Your task to perform on an android device: turn off location history Image 0: 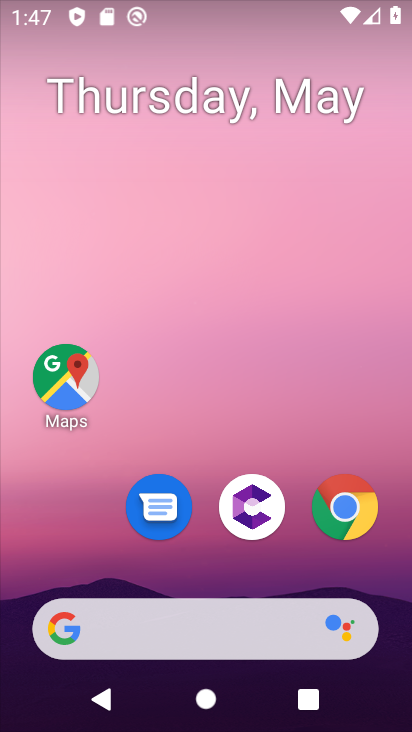
Step 0: drag from (300, 425) to (396, 282)
Your task to perform on an android device: turn off location history Image 1: 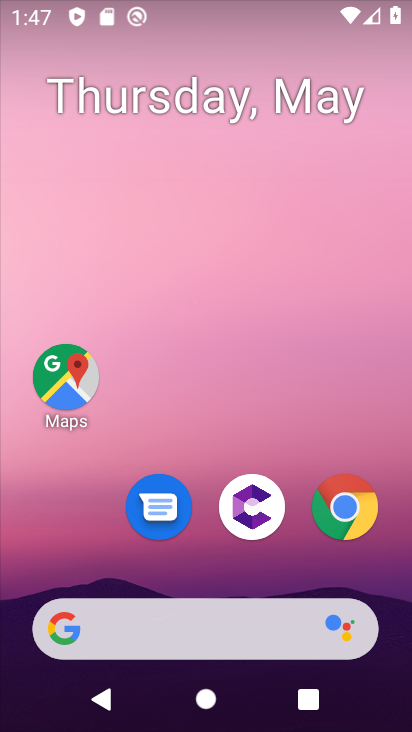
Step 1: drag from (278, 431) to (403, 0)
Your task to perform on an android device: turn off location history Image 2: 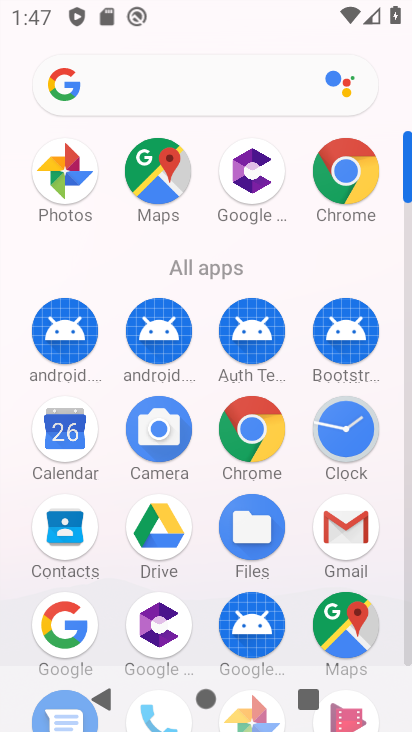
Step 2: drag from (199, 588) to (286, 221)
Your task to perform on an android device: turn off location history Image 3: 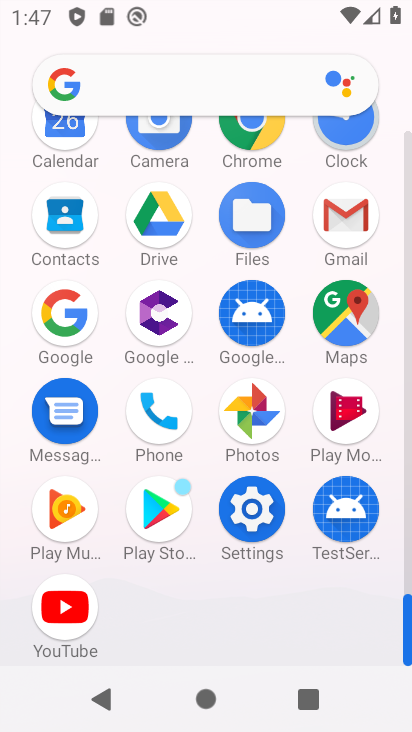
Step 3: click (252, 521)
Your task to perform on an android device: turn off location history Image 4: 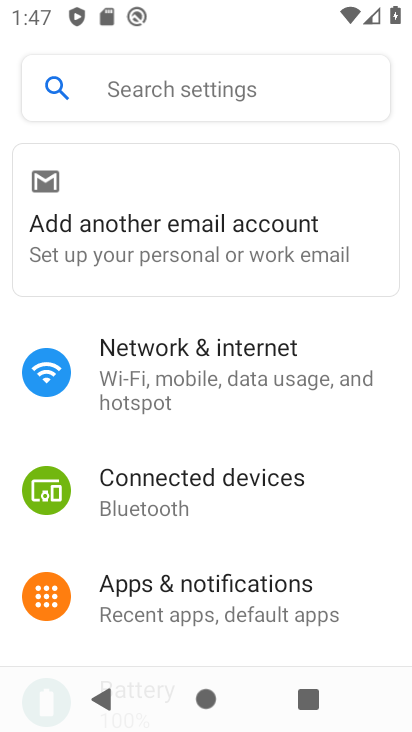
Step 4: drag from (319, 533) to (290, 81)
Your task to perform on an android device: turn off location history Image 5: 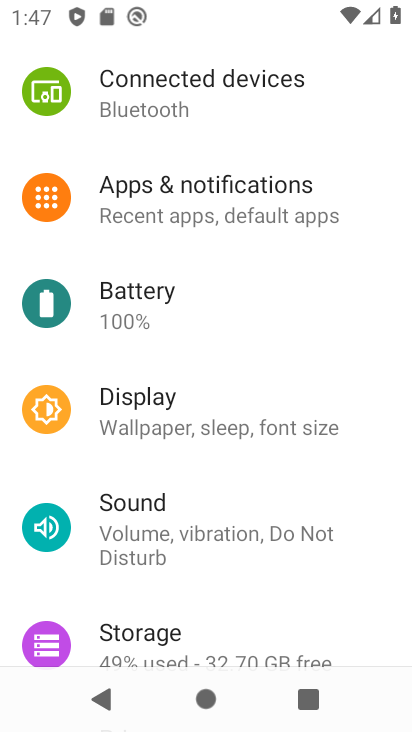
Step 5: drag from (291, 608) to (283, 263)
Your task to perform on an android device: turn off location history Image 6: 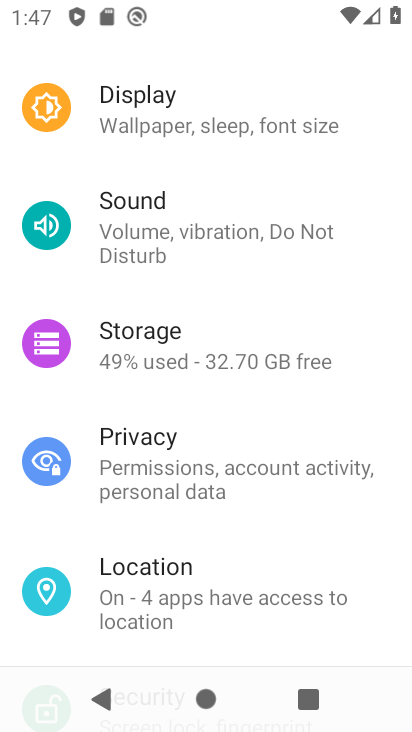
Step 6: click (162, 575)
Your task to perform on an android device: turn off location history Image 7: 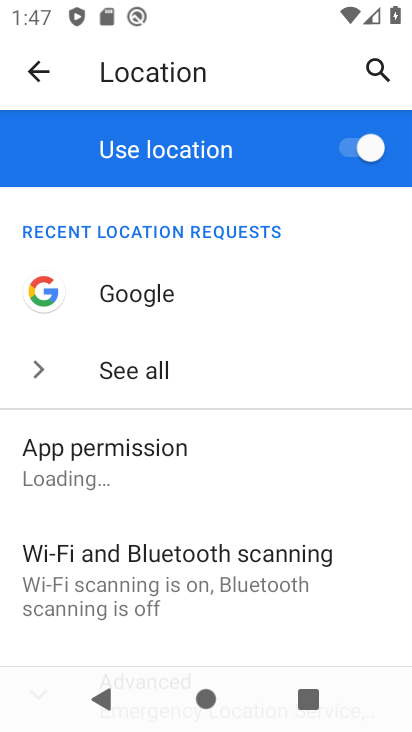
Step 7: drag from (197, 490) to (241, 186)
Your task to perform on an android device: turn off location history Image 8: 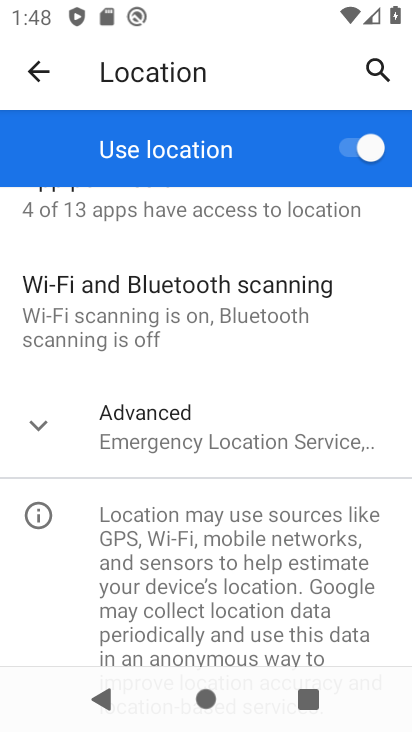
Step 8: click (50, 419)
Your task to perform on an android device: turn off location history Image 9: 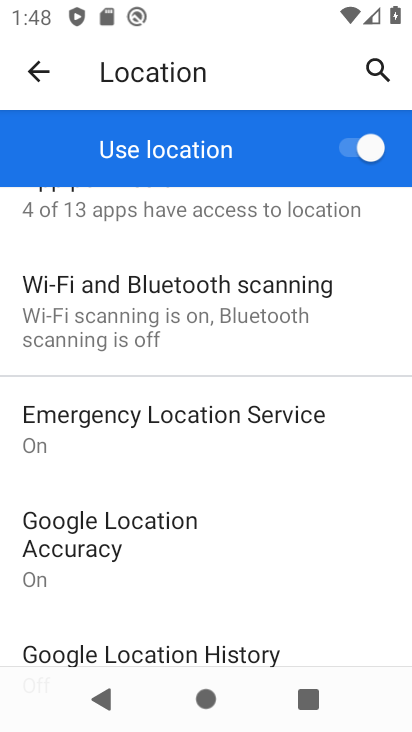
Step 9: click (250, 646)
Your task to perform on an android device: turn off location history Image 10: 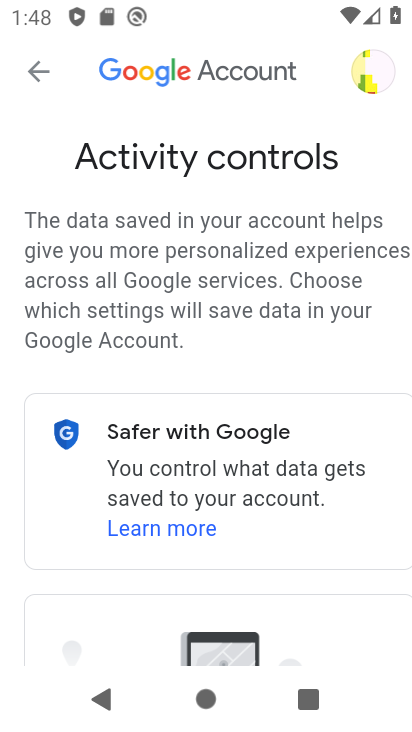
Step 10: drag from (310, 546) to (314, 265)
Your task to perform on an android device: turn off location history Image 11: 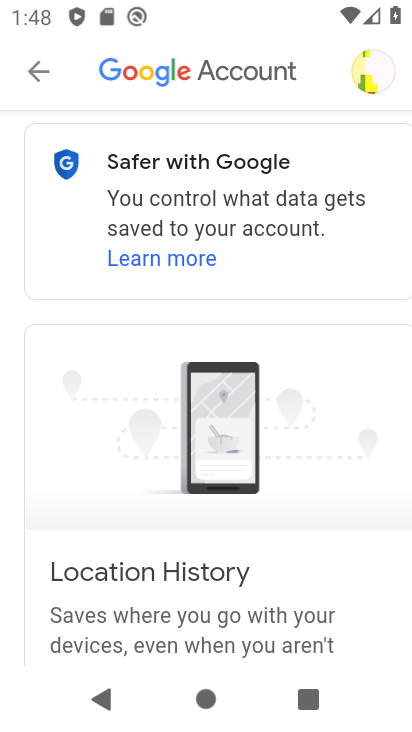
Step 11: drag from (303, 618) to (317, 256)
Your task to perform on an android device: turn off location history Image 12: 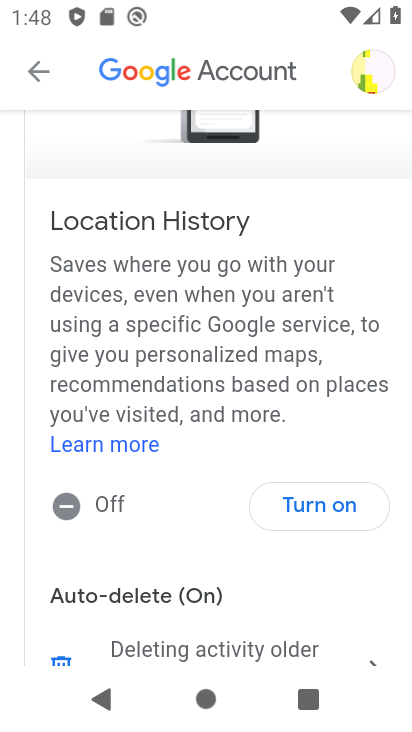
Step 12: click (78, 512)
Your task to perform on an android device: turn off location history Image 13: 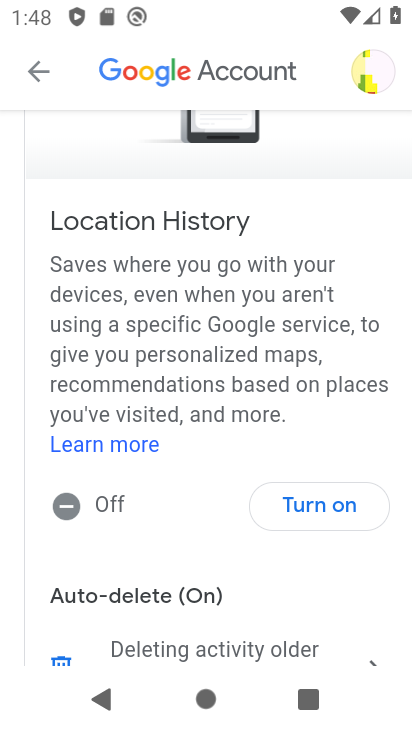
Step 13: click (121, 500)
Your task to perform on an android device: turn off location history Image 14: 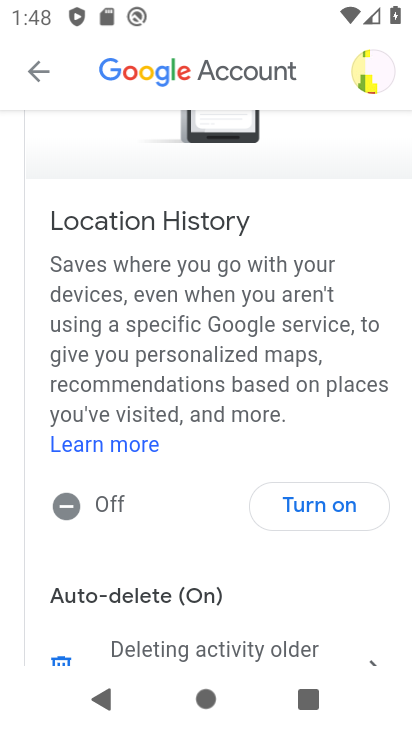
Step 14: click (336, 509)
Your task to perform on an android device: turn off location history Image 15: 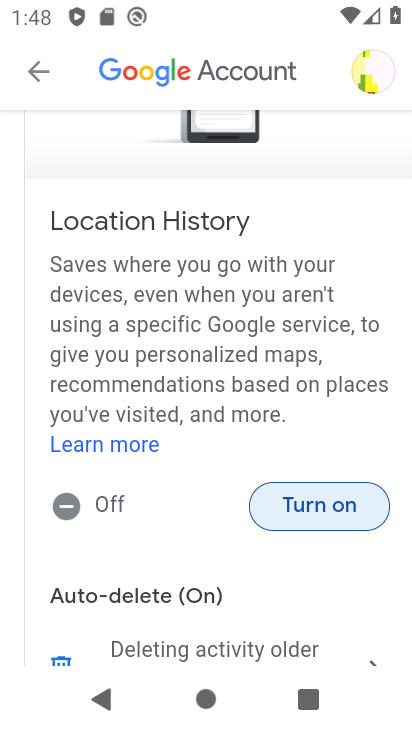
Step 15: click (317, 502)
Your task to perform on an android device: turn off location history Image 16: 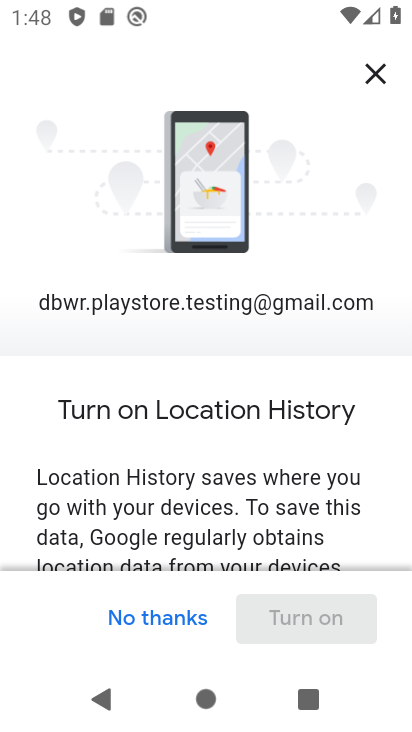
Step 16: click (145, 608)
Your task to perform on an android device: turn off location history Image 17: 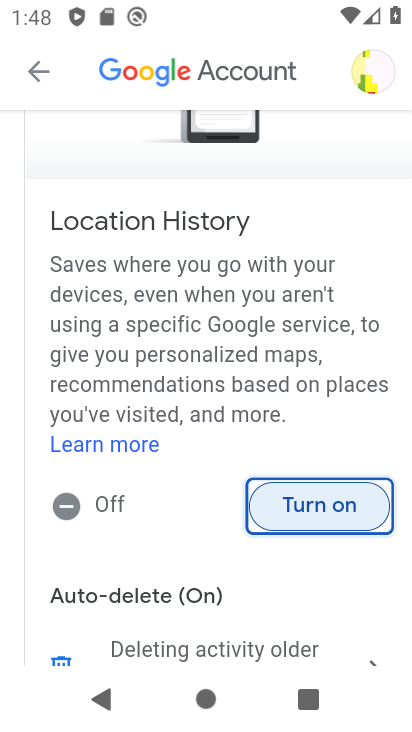
Step 17: click (107, 503)
Your task to perform on an android device: turn off location history Image 18: 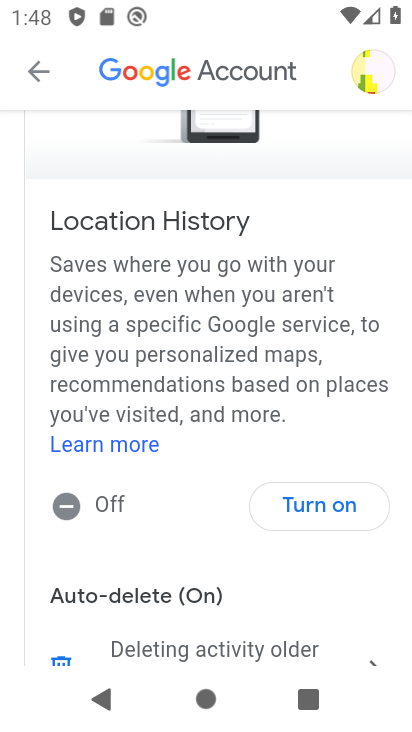
Step 18: click (63, 508)
Your task to perform on an android device: turn off location history Image 19: 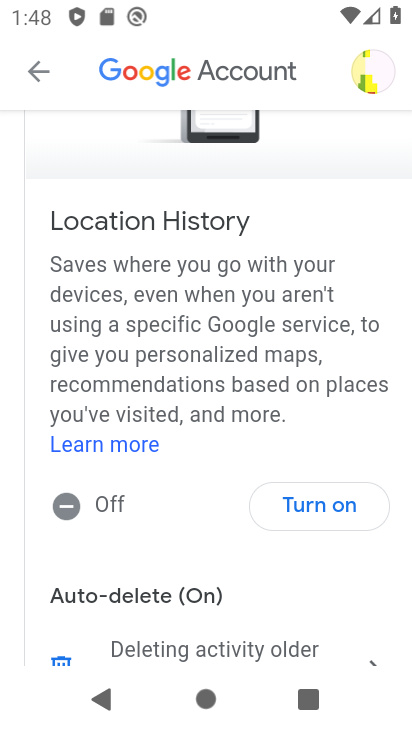
Step 19: click (63, 508)
Your task to perform on an android device: turn off location history Image 20: 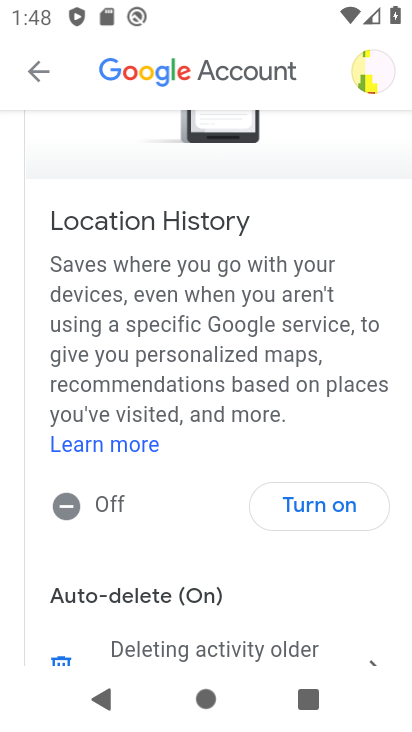
Step 20: click (110, 509)
Your task to perform on an android device: turn off location history Image 21: 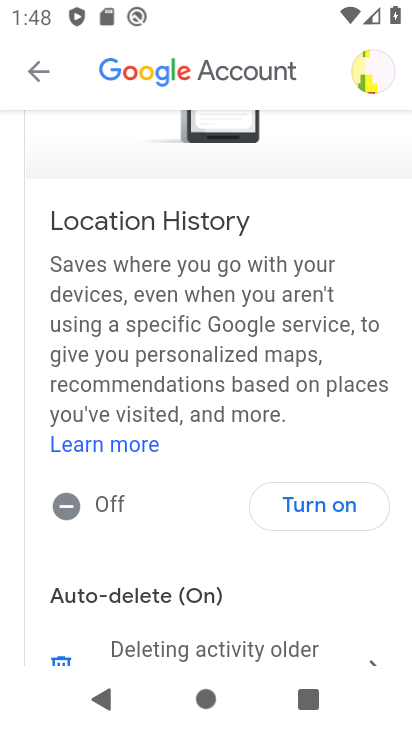
Step 21: click (335, 509)
Your task to perform on an android device: turn off location history Image 22: 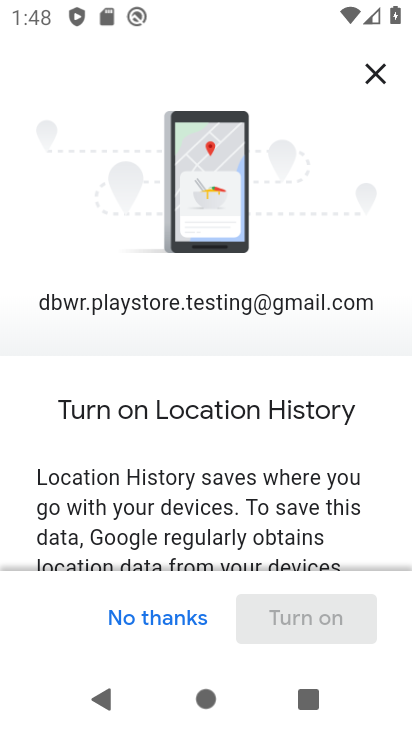
Step 22: click (152, 622)
Your task to perform on an android device: turn off location history Image 23: 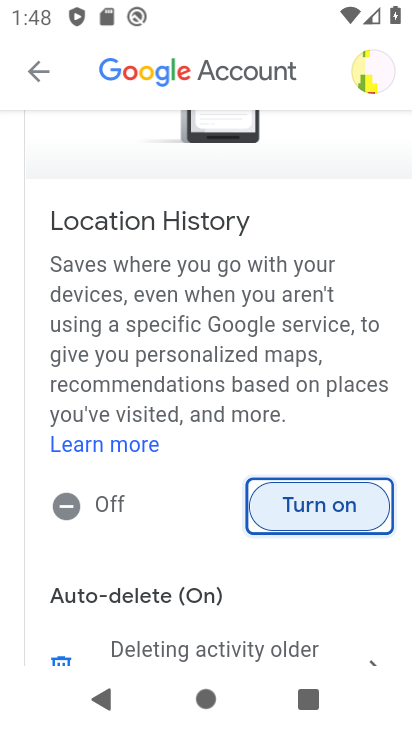
Step 23: task complete